Your task to perform on an android device: turn on location history Image 0: 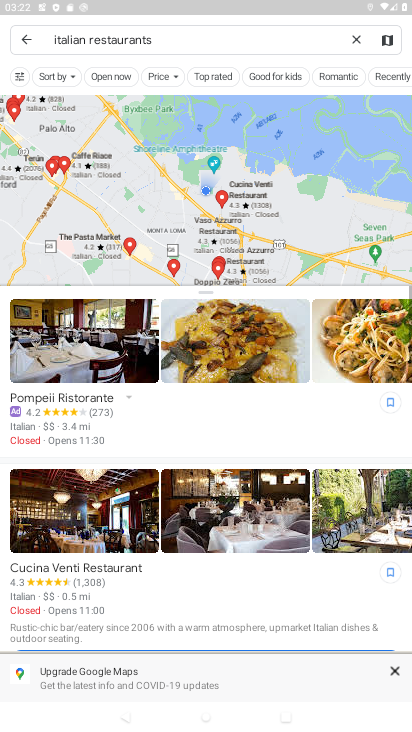
Step 0: press home button
Your task to perform on an android device: turn on location history Image 1: 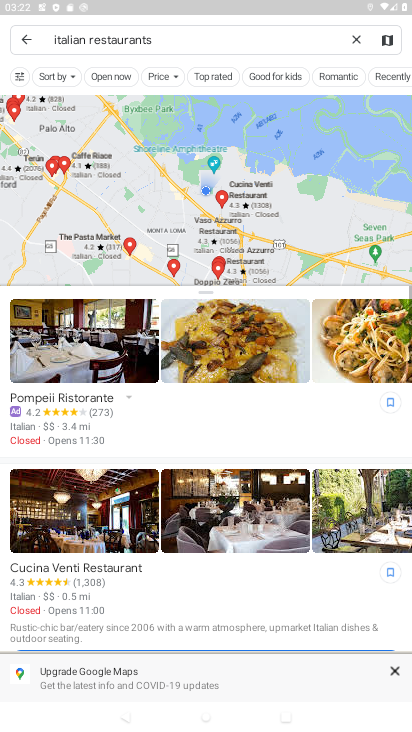
Step 1: click (231, 170)
Your task to perform on an android device: turn on location history Image 2: 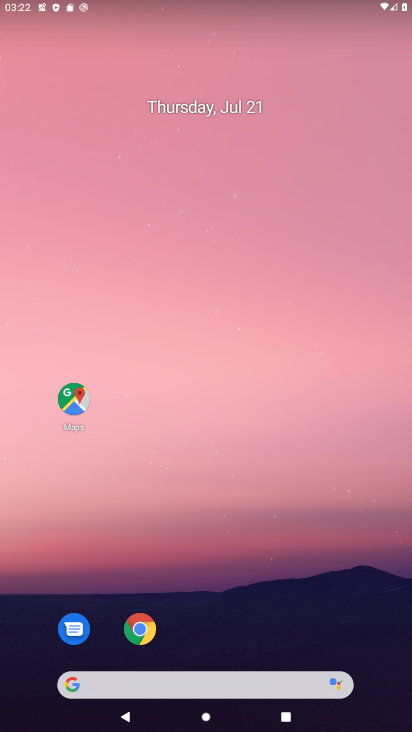
Step 2: drag from (313, 688) to (353, 168)
Your task to perform on an android device: turn on location history Image 3: 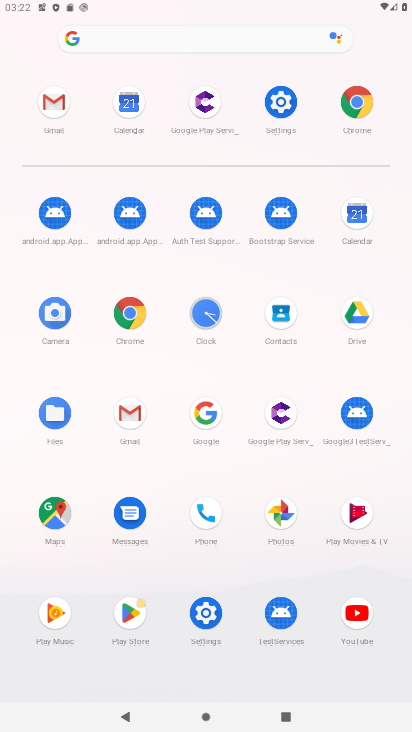
Step 3: click (40, 521)
Your task to perform on an android device: turn on location history Image 4: 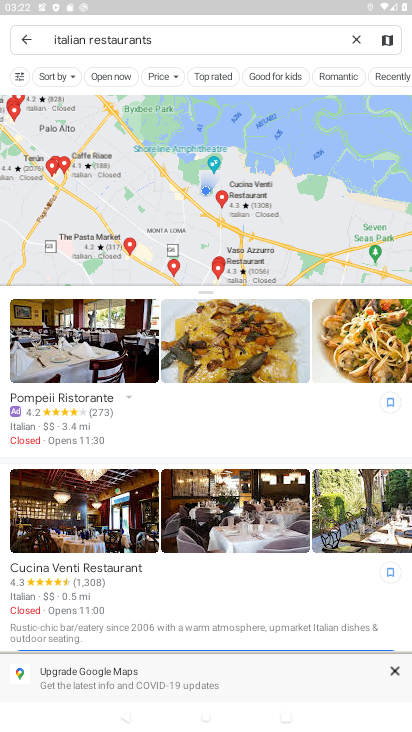
Step 4: click (18, 46)
Your task to perform on an android device: turn on location history Image 5: 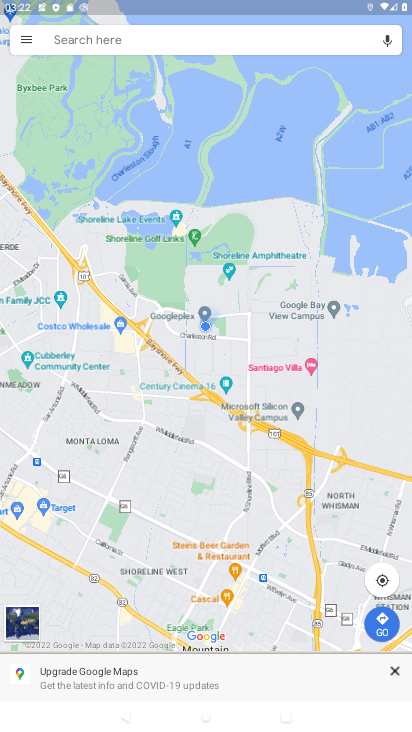
Step 5: click (18, 46)
Your task to perform on an android device: turn on location history Image 6: 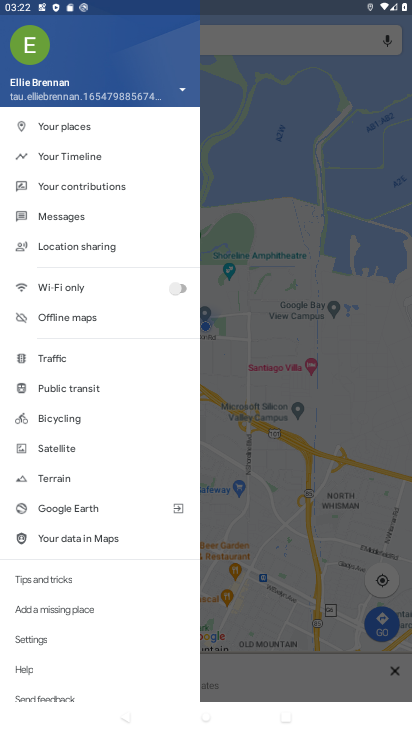
Step 6: click (62, 154)
Your task to perform on an android device: turn on location history Image 7: 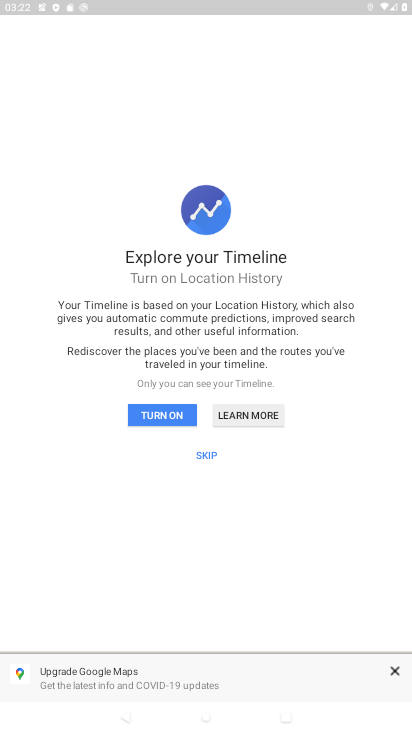
Step 7: click (152, 408)
Your task to perform on an android device: turn on location history Image 8: 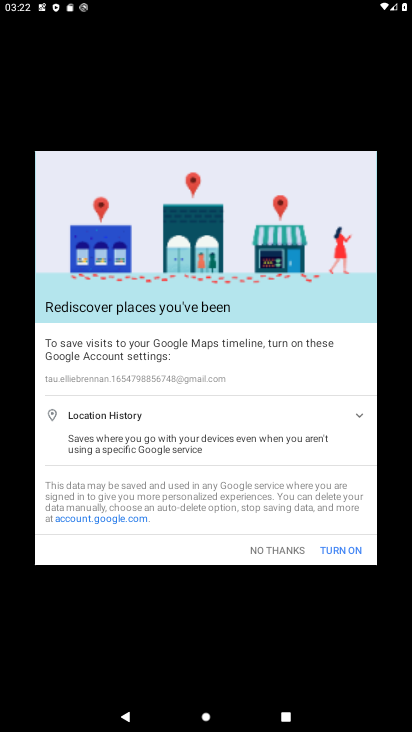
Step 8: click (345, 552)
Your task to perform on an android device: turn on location history Image 9: 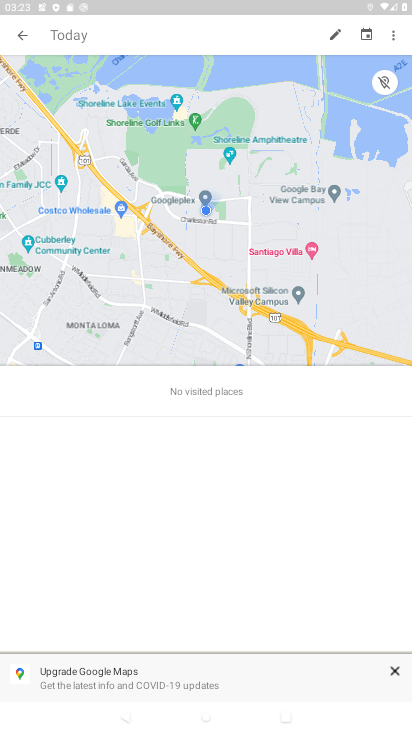
Step 9: task complete